Your task to perform on an android device: choose inbox layout in the gmail app Image 0: 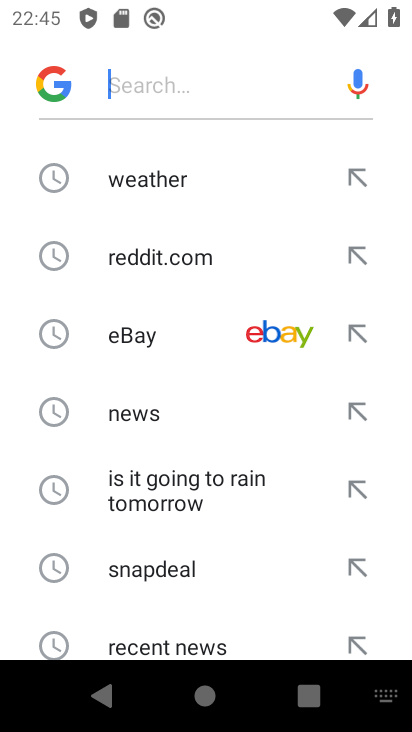
Step 0: press back button
Your task to perform on an android device: choose inbox layout in the gmail app Image 1: 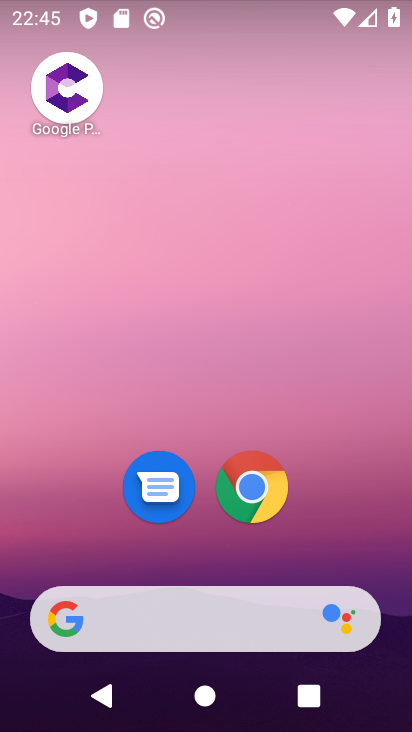
Step 1: drag from (114, 516) to (317, 13)
Your task to perform on an android device: choose inbox layout in the gmail app Image 2: 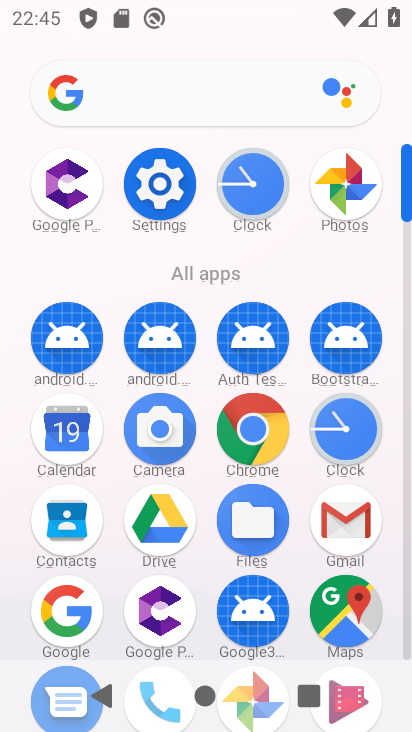
Step 2: click (335, 529)
Your task to perform on an android device: choose inbox layout in the gmail app Image 3: 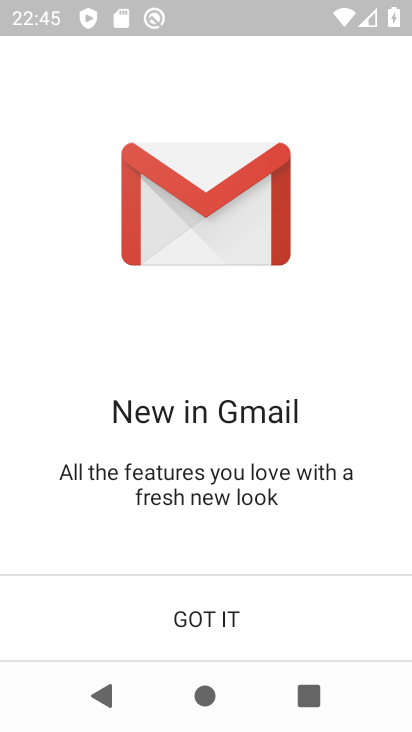
Step 3: click (236, 612)
Your task to perform on an android device: choose inbox layout in the gmail app Image 4: 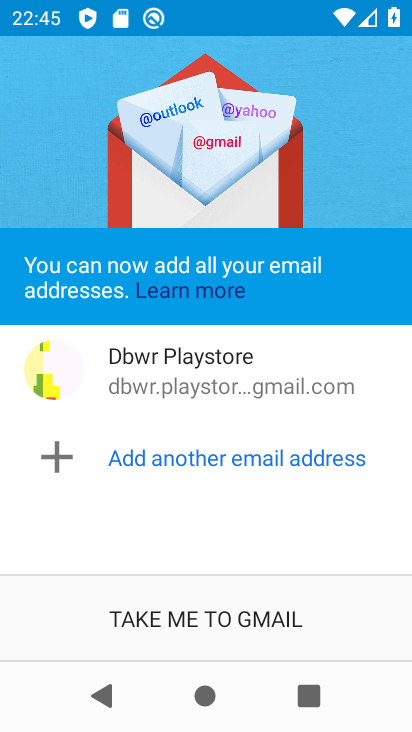
Step 4: click (289, 594)
Your task to perform on an android device: choose inbox layout in the gmail app Image 5: 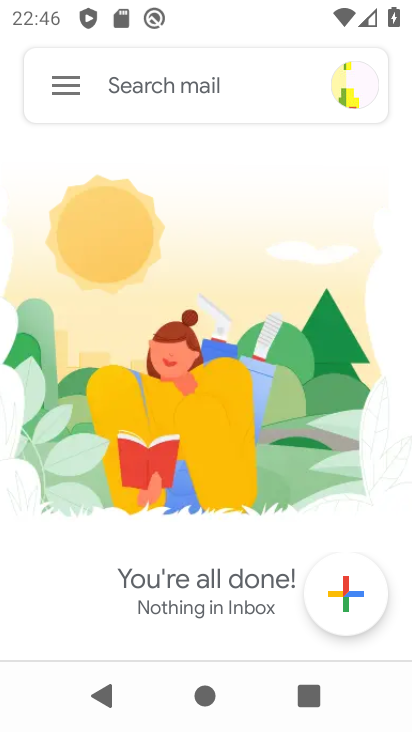
Step 5: click (75, 87)
Your task to perform on an android device: choose inbox layout in the gmail app Image 6: 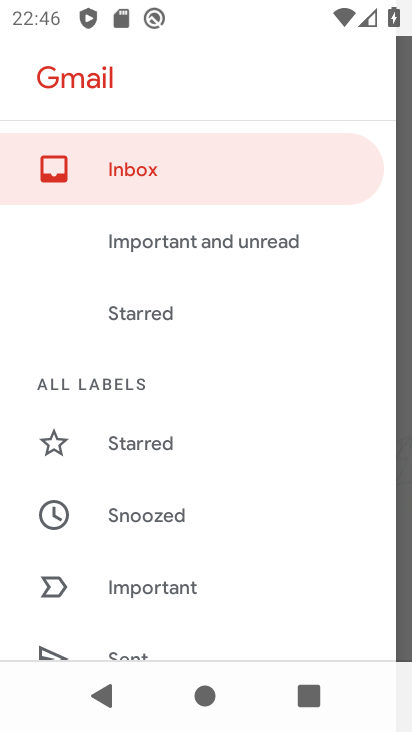
Step 6: drag from (158, 627) to (298, 189)
Your task to perform on an android device: choose inbox layout in the gmail app Image 7: 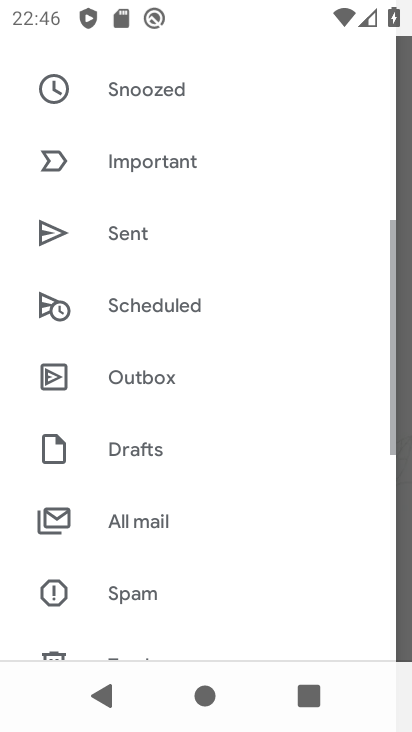
Step 7: drag from (186, 589) to (284, 248)
Your task to perform on an android device: choose inbox layout in the gmail app Image 8: 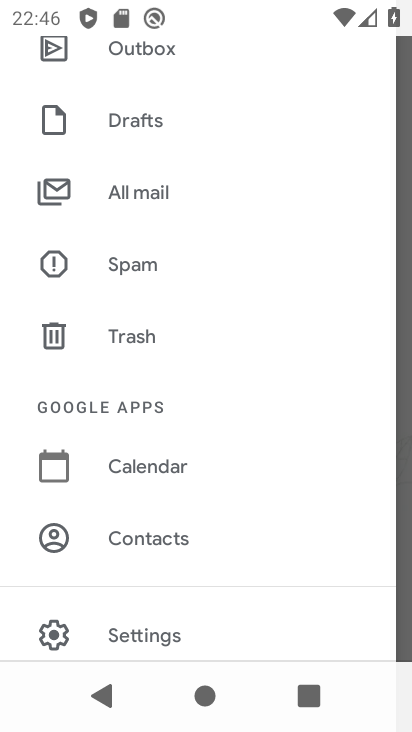
Step 8: click (175, 612)
Your task to perform on an android device: choose inbox layout in the gmail app Image 9: 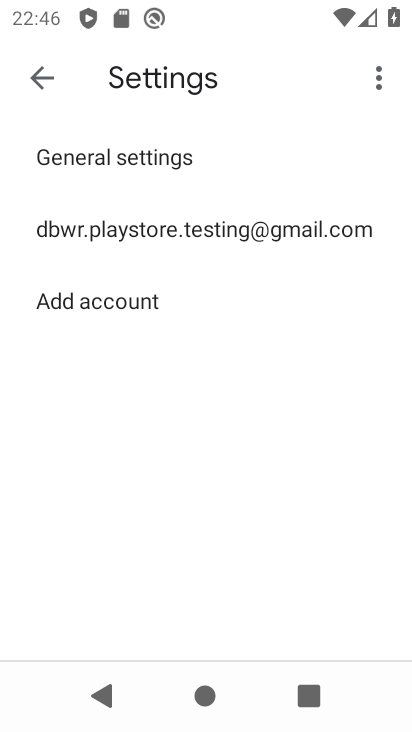
Step 9: click (319, 249)
Your task to perform on an android device: choose inbox layout in the gmail app Image 10: 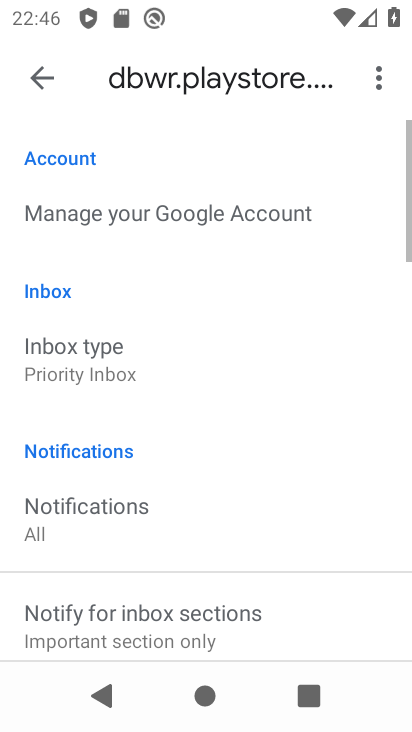
Step 10: click (200, 371)
Your task to perform on an android device: choose inbox layout in the gmail app Image 11: 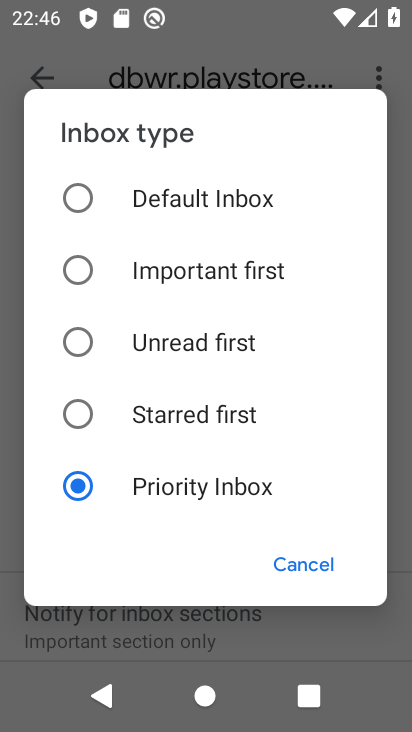
Step 11: click (228, 347)
Your task to perform on an android device: choose inbox layout in the gmail app Image 12: 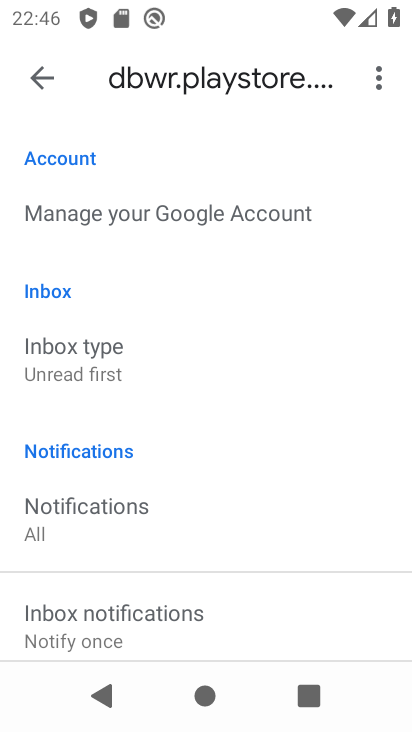
Step 12: task complete